Your task to perform on an android device: Search for sushi restaurants on Maps Image 0: 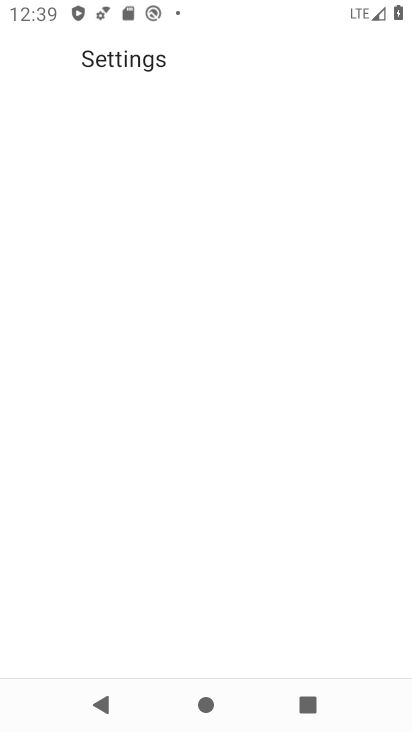
Step 0: press home button
Your task to perform on an android device: Search for sushi restaurants on Maps Image 1: 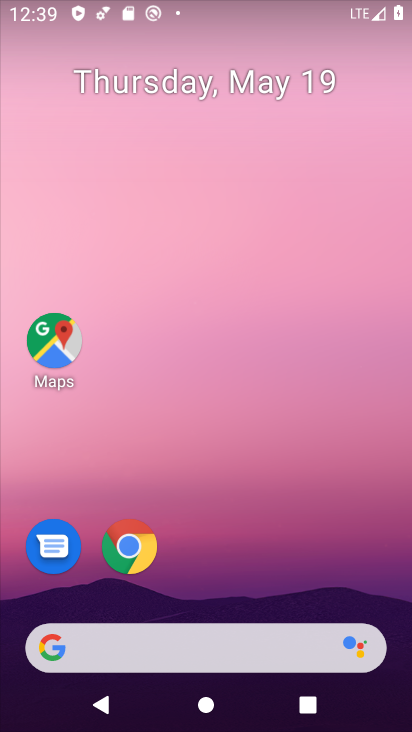
Step 1: click (67, 328)
Your task to perform on an android device: Search for sushi restaurants on Maps Image 2: 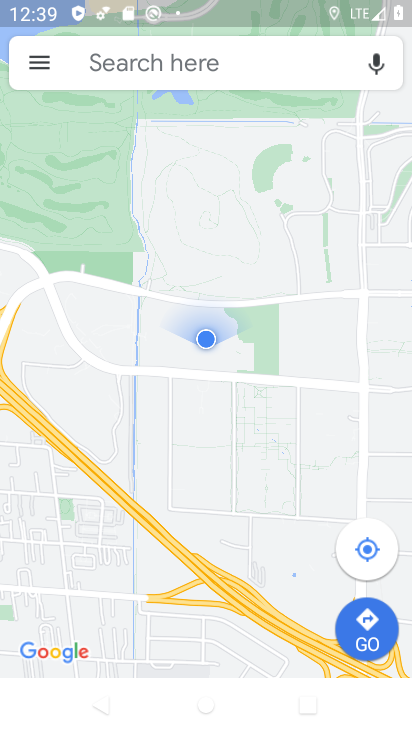
Step 2: click (229, 58)
Your task to perform on an android device: Search for sushi restaurants on Maps Image 3: 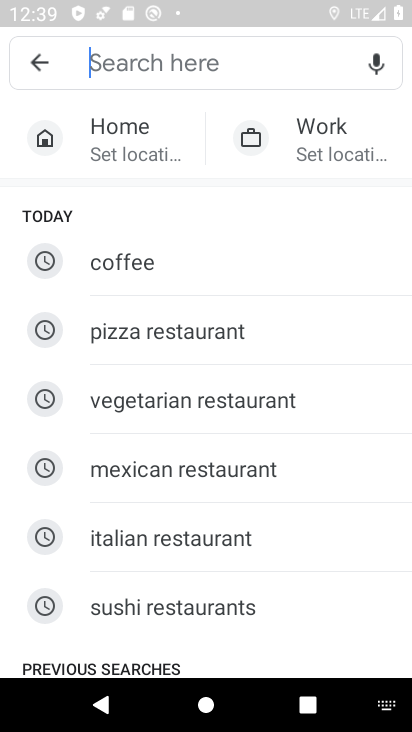
Step 3: type "sushi restaurant"
Your task to perform on an android device: Search for sushi restaurants on Maps Image 4: 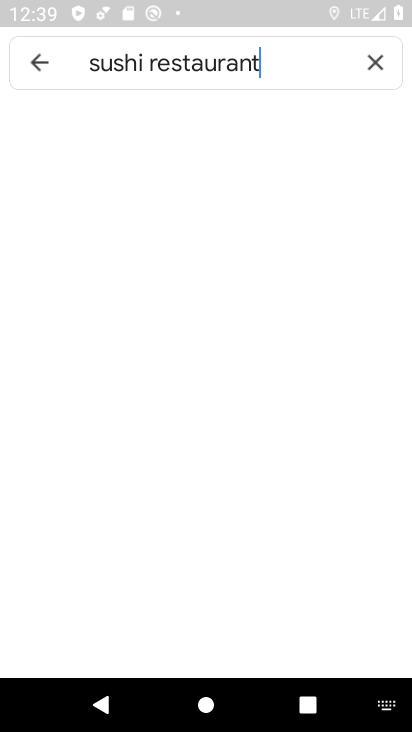
Step 4: type ""
Your task to perform on an android device: Search for sushi restaurants on Maps Image 5: 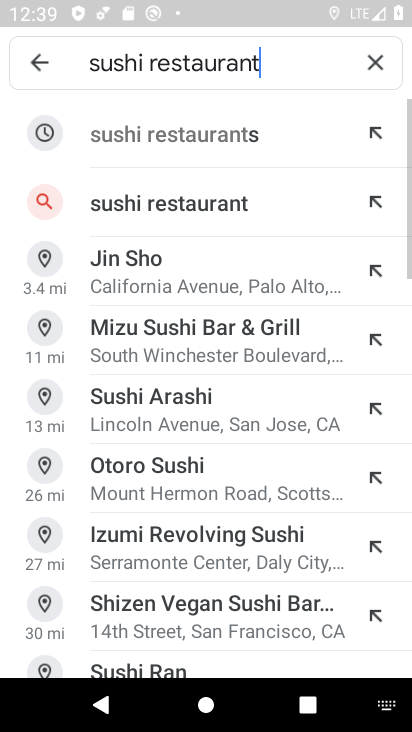
Step 5: click (137, 214)
Your task to perform on an android device: Search for sushi restaurants on Maps Image 6: 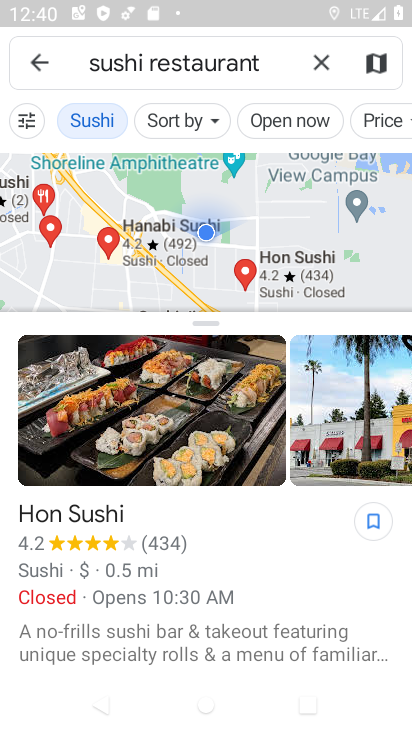
Step 6: task complete